Your task to perform on an android device: What is the recent news? Image 0: 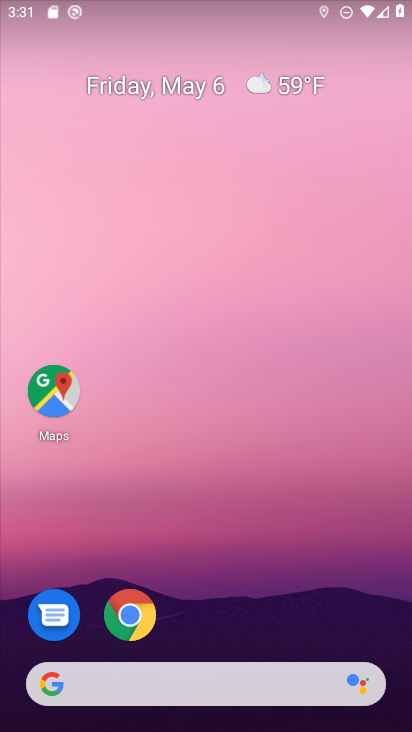
Step 0: click (116, 617)
Your task to perform on an android device: What is the recent news? Image 1: 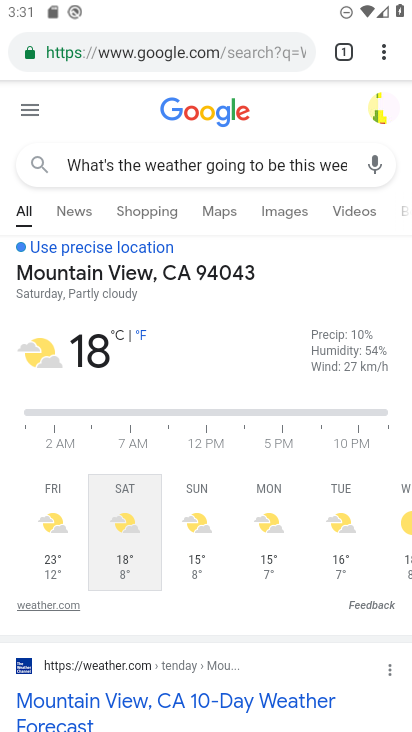
Step 1: click (223, 42)
Your task to perform on an android device: What is the recent news? Image 2: 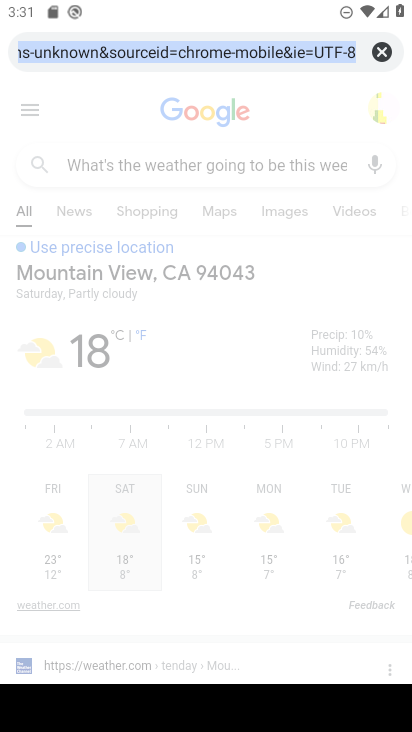
Step 2: click (374, 47)
Your task to perform on an android device: What is the recent news? Image 3: 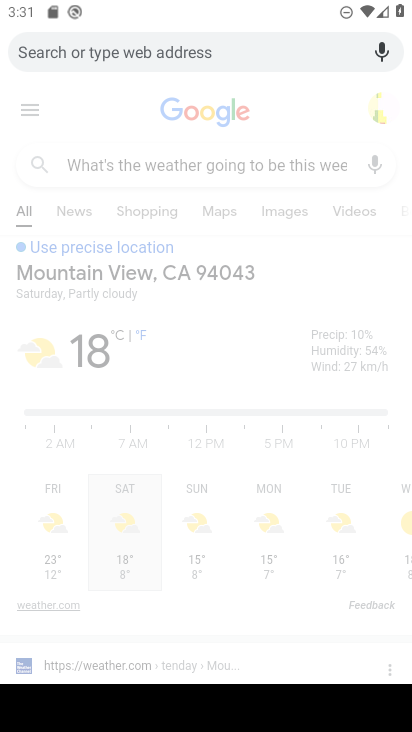
Step 3: type "recent news?"
Your task to perform on an android device: What is the recent news? Image 4: 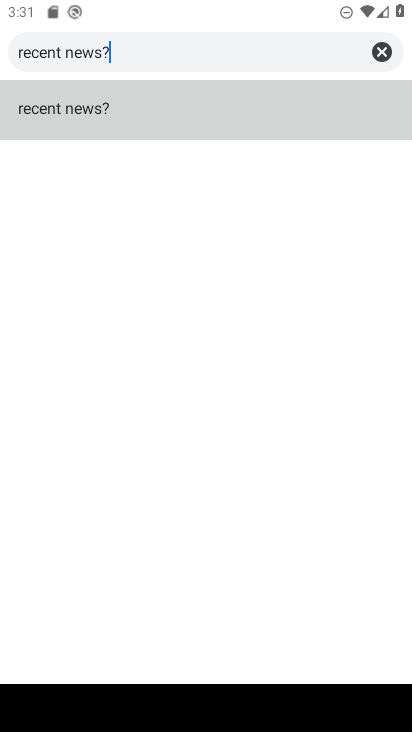
Step 4: click (82, 104)
Your task to perform on an android device: What is the recent news? Image 5: 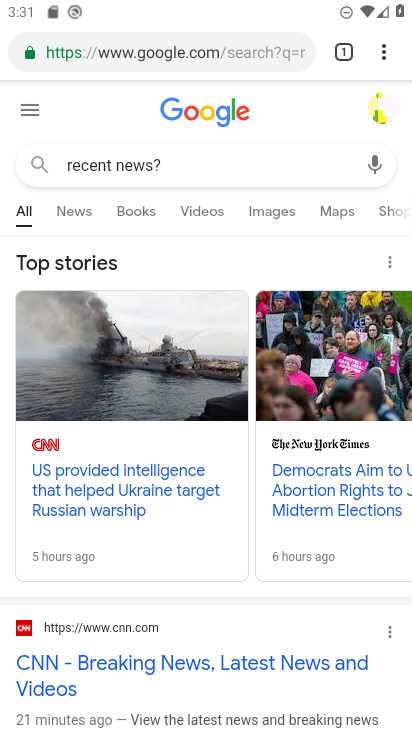
Step 5: drag from (307, 569) to (288, 167)
Your task to perform on an android device: What is the recent news? Image 6: 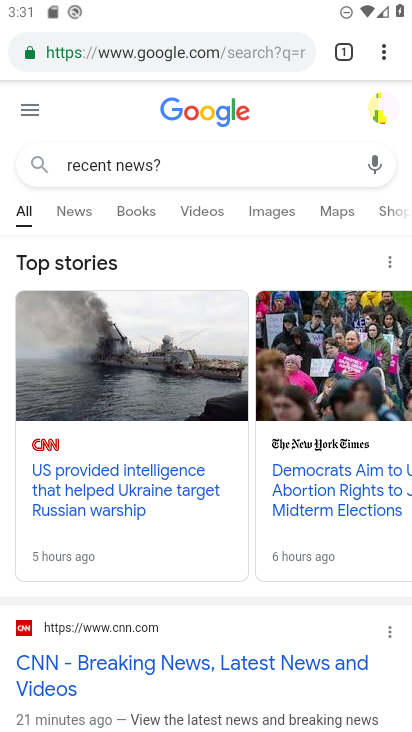
Step 6: click (73, 214)
Your task to perform on an android device: What is the recent news? Image 7: 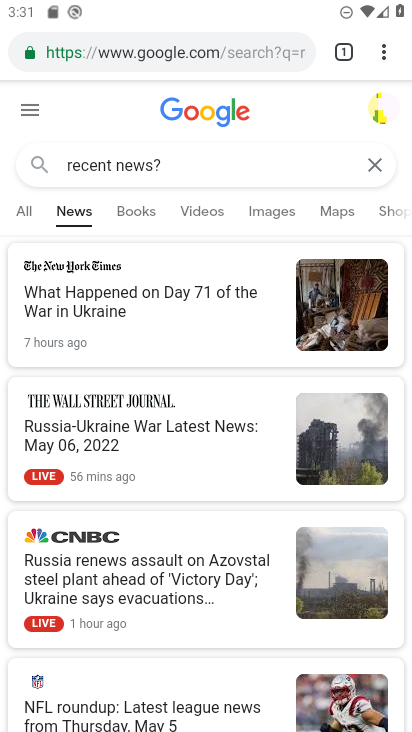
Step 7: task complete